Your task to perform on an android device: install app "Booking.com: Hotels and more" Image 0: 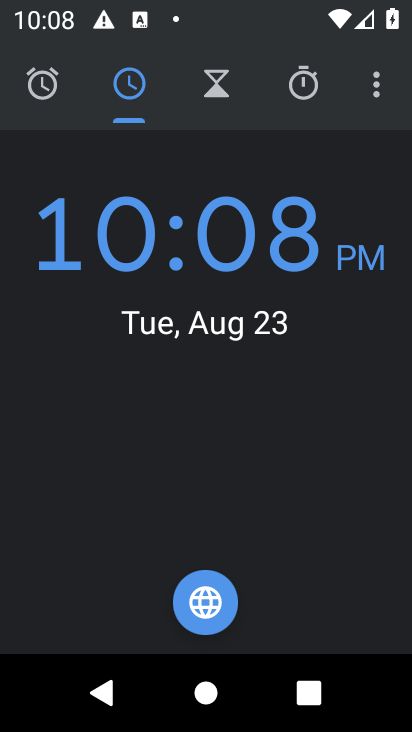
Step 0: press home button
Your task to perform on an android device: install app "Booking.com: Hotels and more" Image 1: 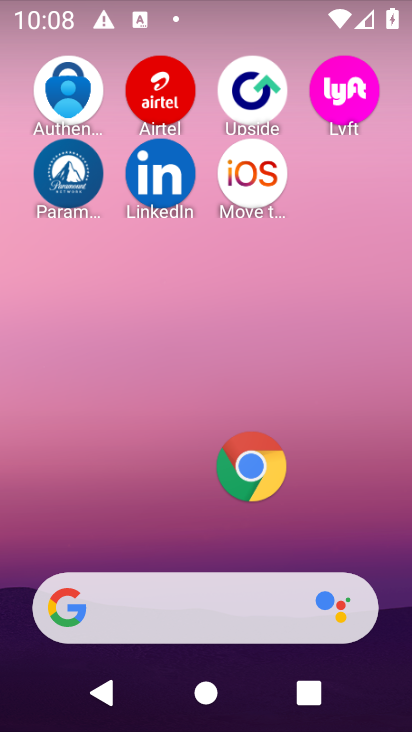
Step 1: drag from (180, 475) to (344, 5)
Your task to perform on an android device: install app "Booking.com: Hotels and more" Image 2: 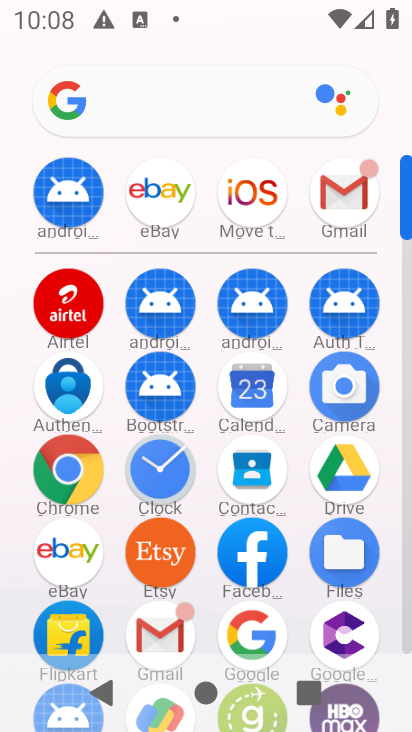
Step 2: drag from (257, 596) to (350, 119)
Your task to perform on an android device: install app "Booking.com: Hotels and more" Image 3: 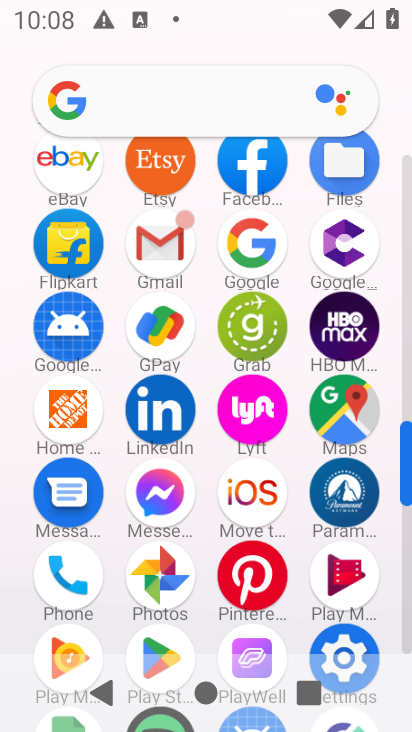
Step 3: drag from (185, 535) to (263, 107)
Your task to perform on an android device: install app "Booking.com: Hotels and more" Image 4: 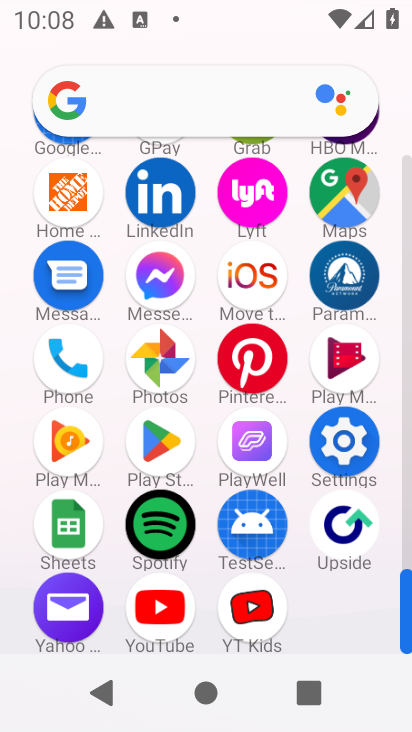
Step 4: click (158, 441)
Your task to perform on an android device: install app "Booking.com: Hotels and more" Image 5: 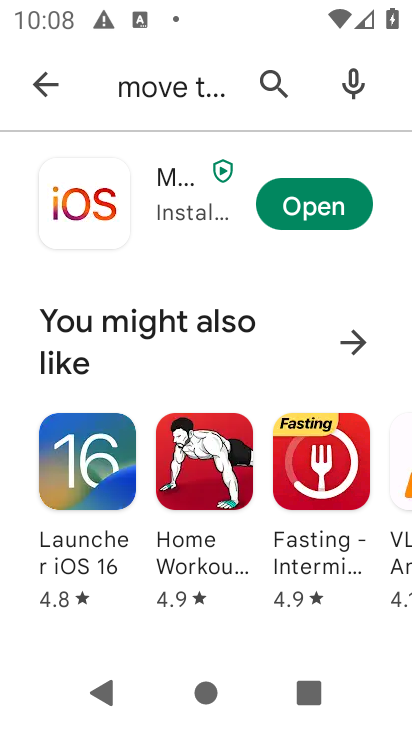
Step 5: click (275, 83)
Your task to perform on an android device: install app "Booking.com: Hotels and more" Image 6: 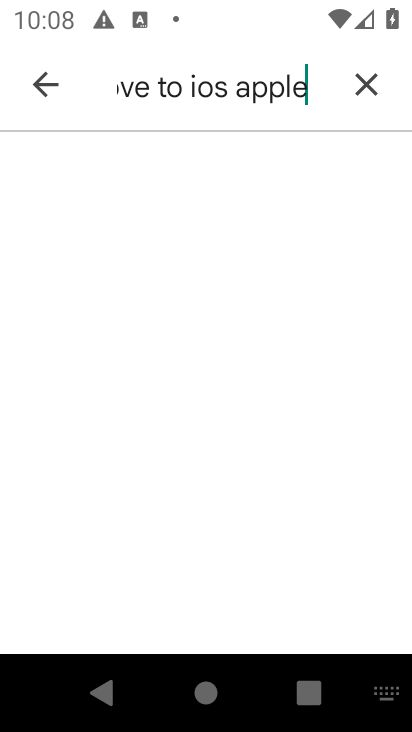
Step 6: click (362, 87)
Your task to perform on an android device: install app "Booking.com: Hotels and more" Image 7: 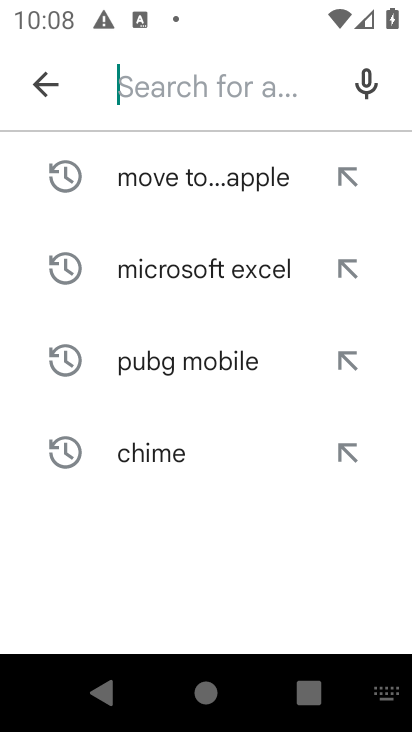
Step 7: click (181, 82)
Your task to perform on an android device: install app "Booking.com: Hotels and more" Image 8: 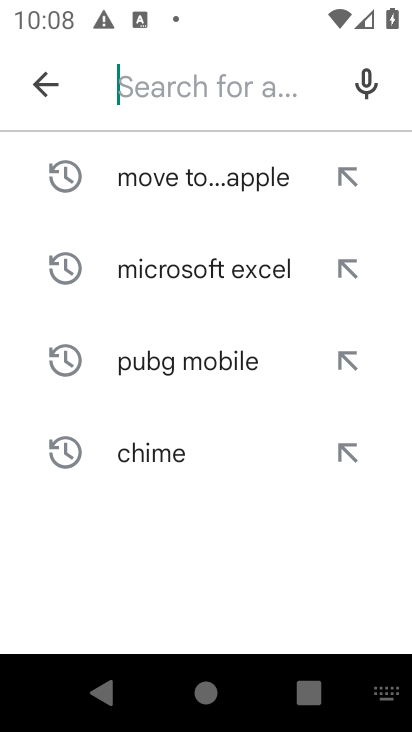
Step 8: type "Booking.com: Hotels and more"
Your task to perform on an android device: install app "Booking.com: Hotels and more" Image 9: 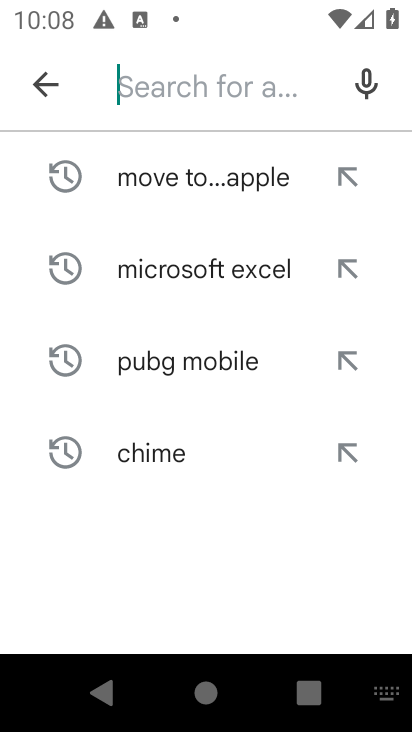
Step 9: click (322, 573)
Your task to perform on an android device: install app "Booking.com: Hotels and more" Image 10: 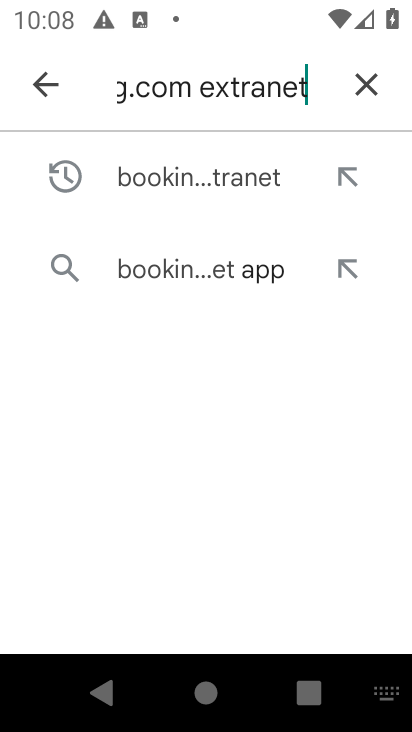
Step 10: click (364, 83)
Your task to perform on an android device: install app "Booking.com: Hotels and more" Image 11: 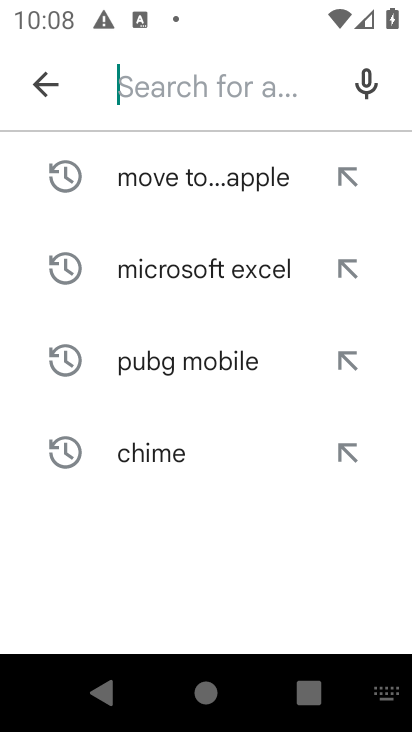
Step 11: type "booking .com"
Your task to perform on an android device: install app "Booking.com: Hotels and more" Image 12: 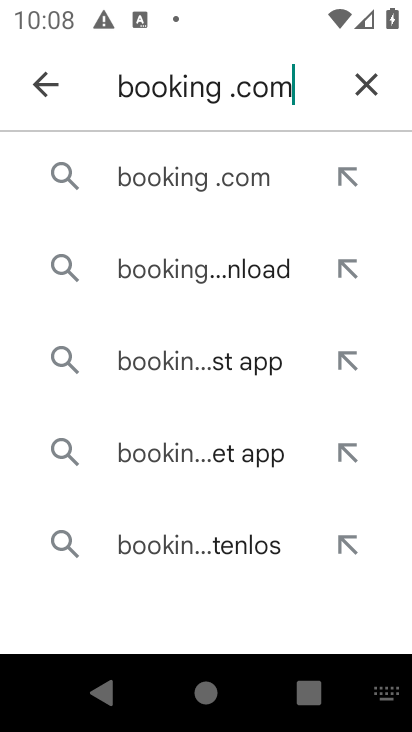
Step 12: click (175, 210)
Your task to perform on an android device: install app "Booking.com: Hotels and more" Image 13: 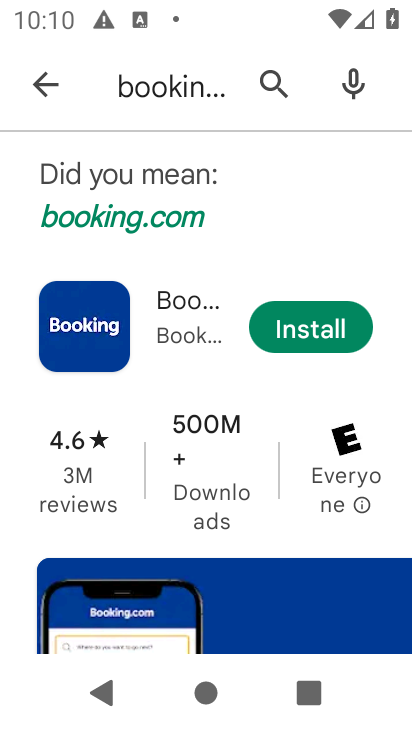
Step 13: click (316, 338)
Your task to perform on an android device: install app "Booking.com: Hotels and more" Image 14: 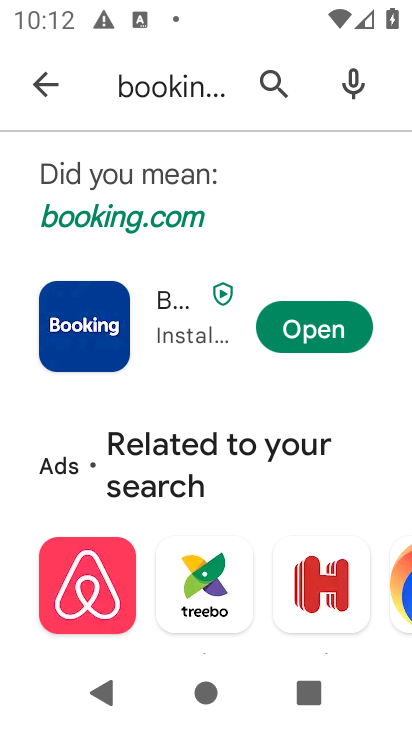
Step 14: task complete